Your task to perform on an android device: Search for pizza restaurants on Maps Image 0: 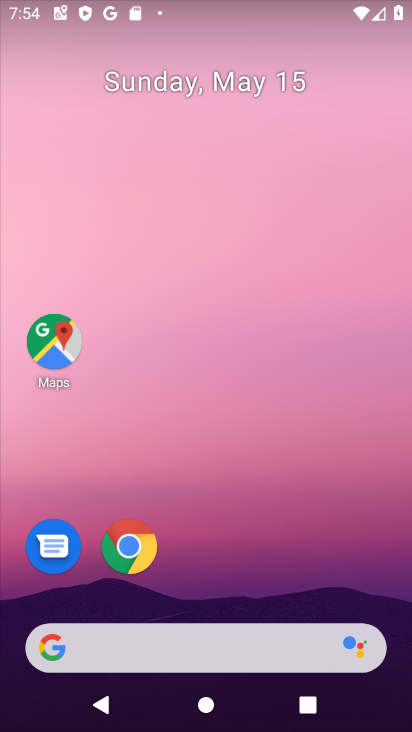
Step 0: click (40, 333)
Your task to perform on an android device: Search for pizza restaurants on Maps Image 1: 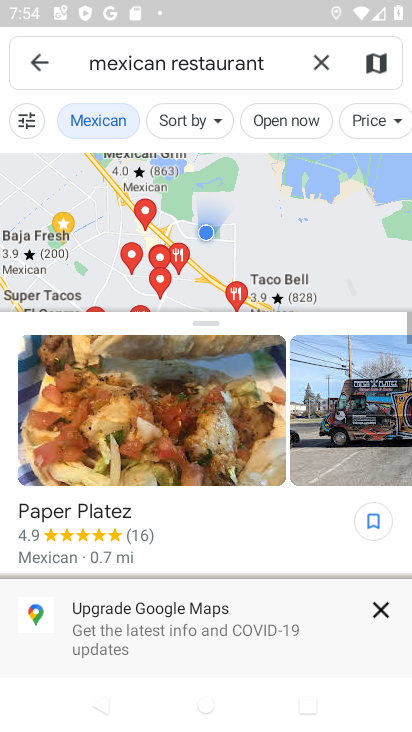
Step 1: click (325, 55)
Your task to perform on an android device: Search for pizza restaurants on Maps Image 2: 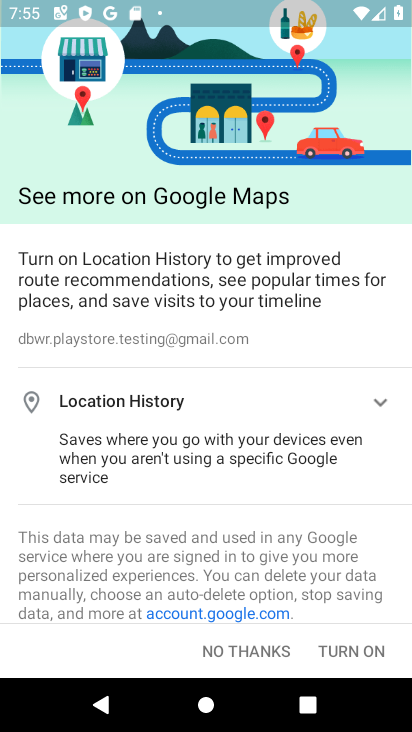
Step 2: click (261, 642)
Your task to perform on an android device: Search for pizza restaurants on Maps Image 3: 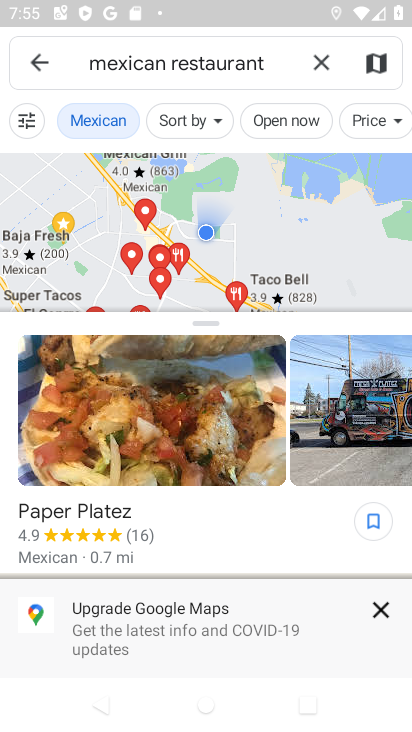
Step 3: click (321, 54)
Your task to perform on an android device: Search for pizza restaurants on Maps Image 4: 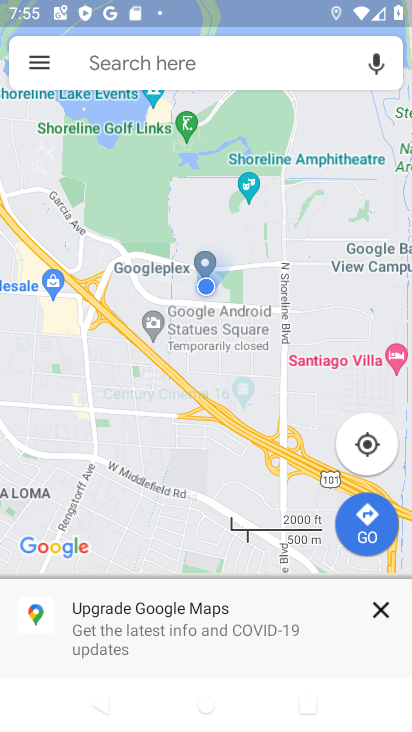
Step 4: click (251, 57)
Your task to perform on an android device: Search for pizza restaurants on Maps Image 5: 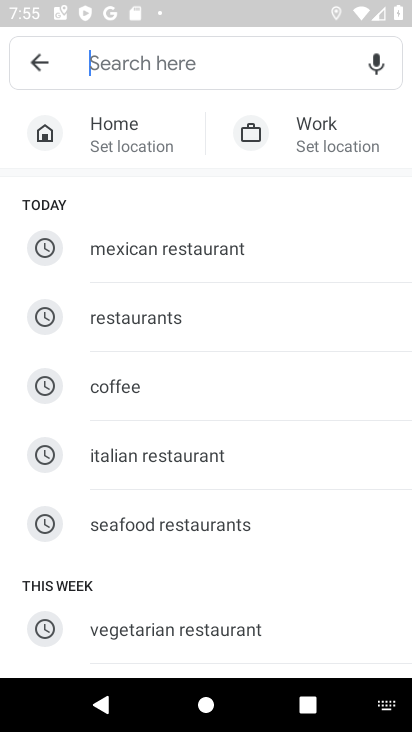
Step 5: type "pizza restaurants"
Your task to perform on an android device: Search for pizza restaurants on Maps Image 6: 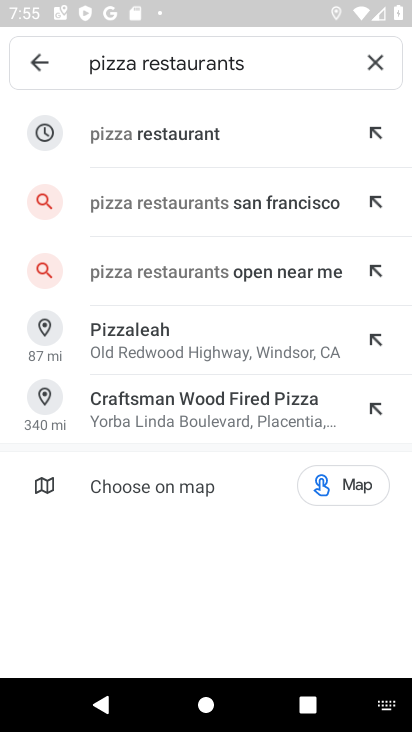
Step 6: click (183, 133)
Your task to perform on an android device: Search for pizza restaurants on Maps Image 7: 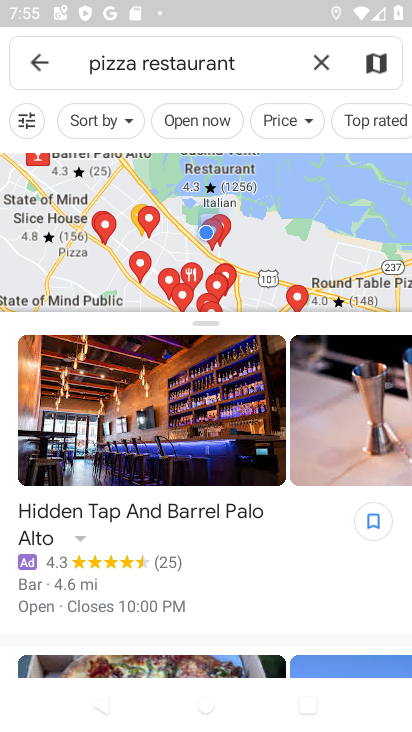
Step 7: task complete